Your task to perform on an android device: change timer sound Image 0: 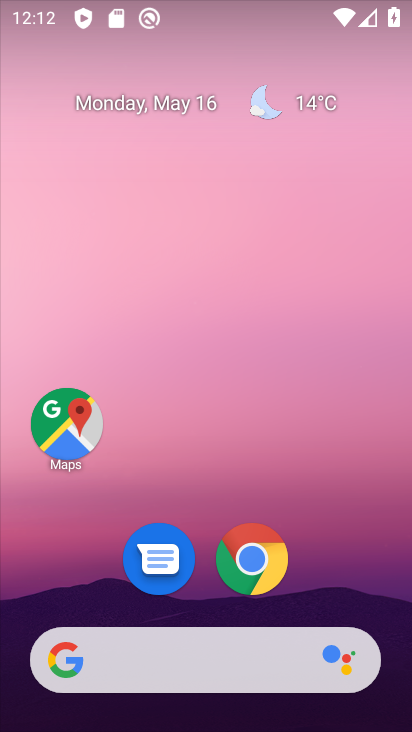
Step 0: drag from (336, 557) to (144, 4)
Your task to perform on an android device: change timer sound Image 1: 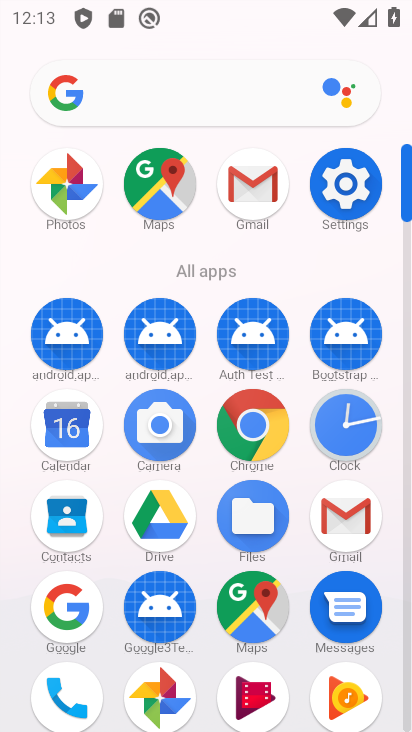
Step 1: click (361, 420)
Your task to perform on an android device: change timer sound Image 2: 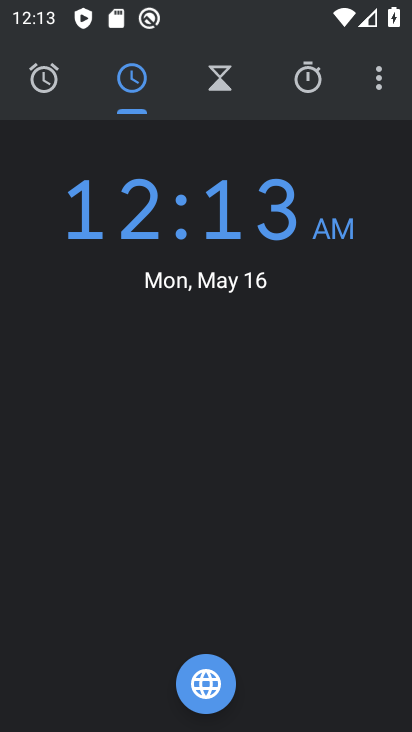
Step 2: click (381, 71)
Your task to perform on an android device: change timer sound Image 3: 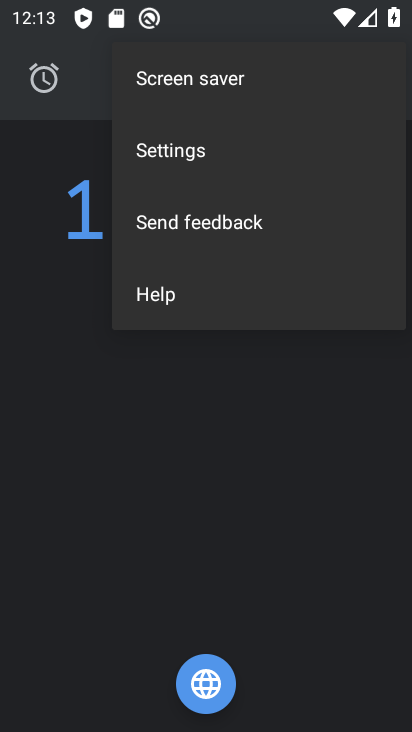
Step 3: click (217, 157)
Your task to perform on an android device: change timer sound Image 4: 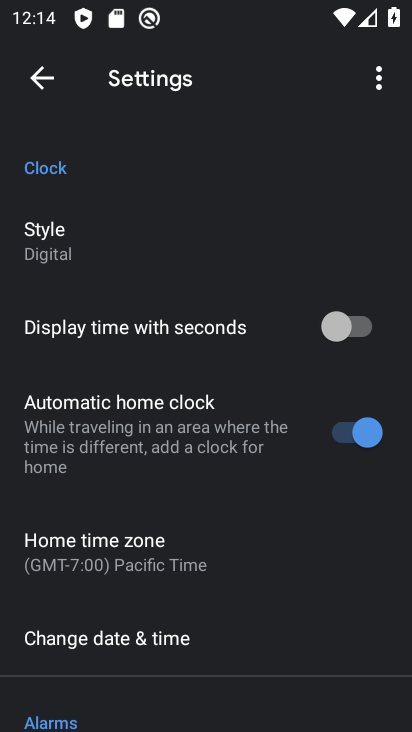
Step 4: click (101, 126)
Your task to perform on an android device: change timer sound Image 5: 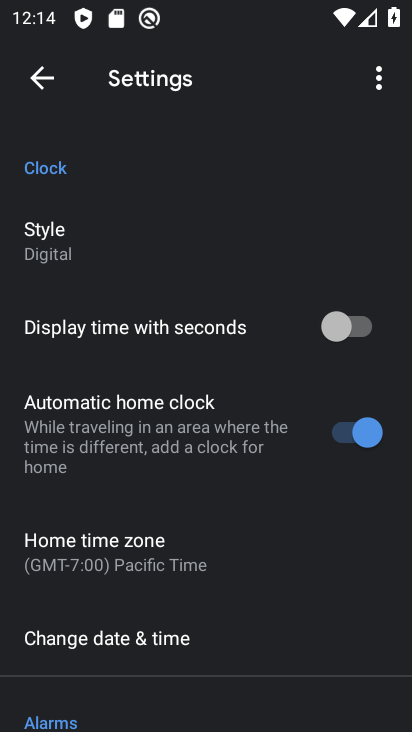
Step 5: drag from (182, 666) to (131, 301)
Your task to perform on an android device: change timer sound Image 6: 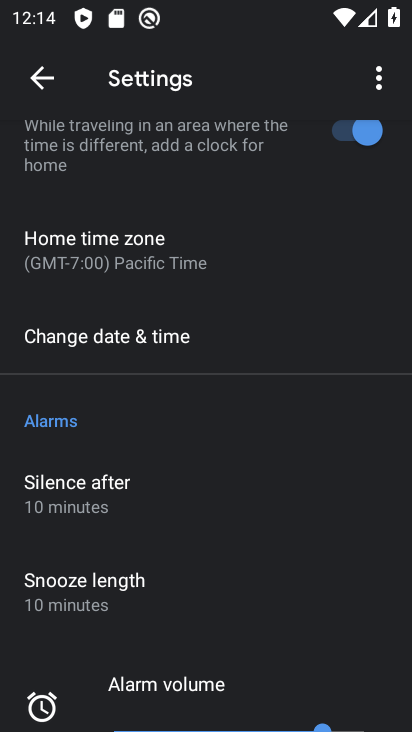
Step 6: drag from (145, 646) to (96, 239)
Your task to perform on an android device: change timer sound Image 7: 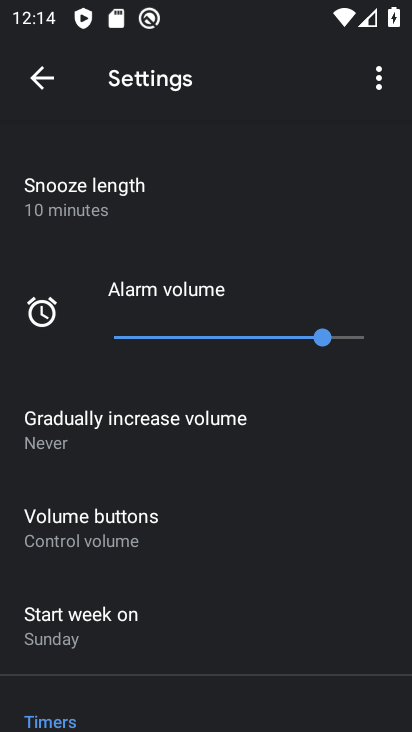
Step 7: drag from (111, 544) to (76, 155)
Your task to perform on an android device: change timer sound Image 8: 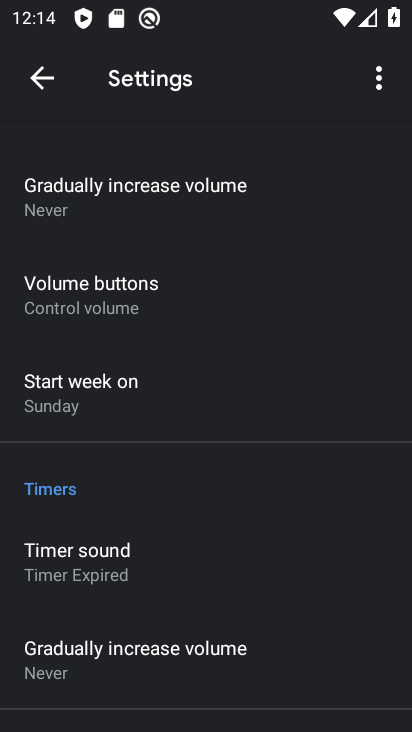
Step 8: click (127, 573)
Your task to perform on an android device: change timer sound Image 9: 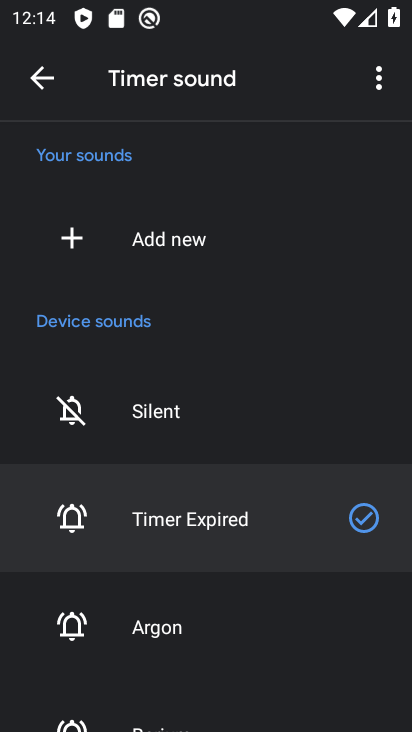
Step 9: click (174, 649)
Your task to perform on an android device: change timer sound Image 10: 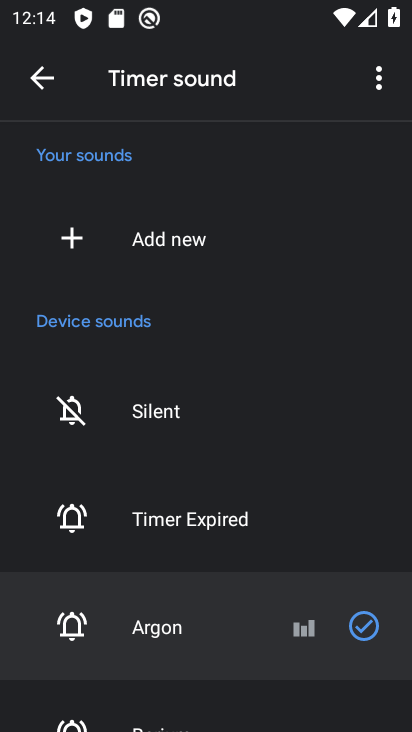
Step 10: task complete